Your task to perform on an android device: turn off improve location accuracy Image 0: 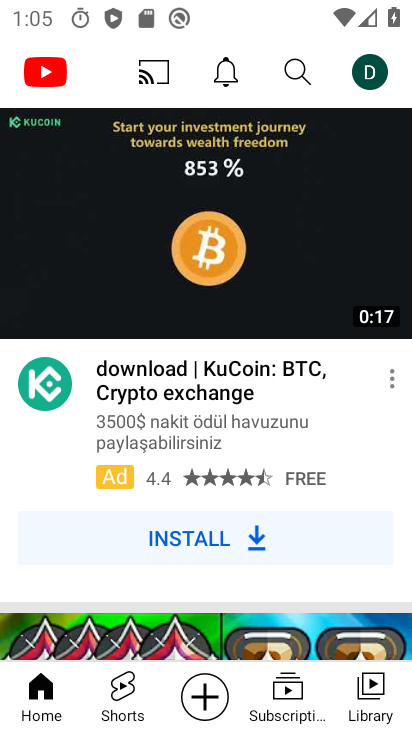
Step 0: press home button
Your task to perform on an android device: turn off improve location accuracy Image 1: 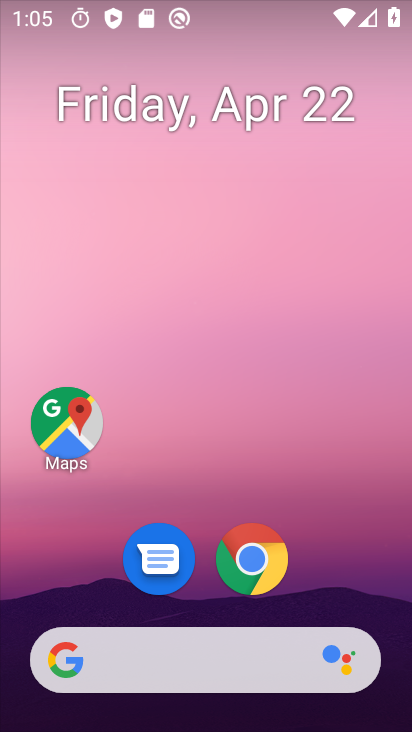
Step 1: drag from (339, 566) to (355, 153)
Your task to perform on an android device: turn off improve location accuracy Image 2: 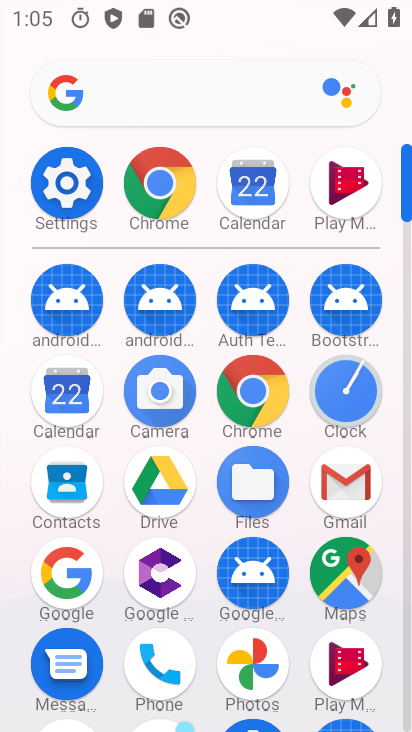
Step 2: click (77, 191)
Your task to perform on an android device: turn off improve location accuracy Image 3: 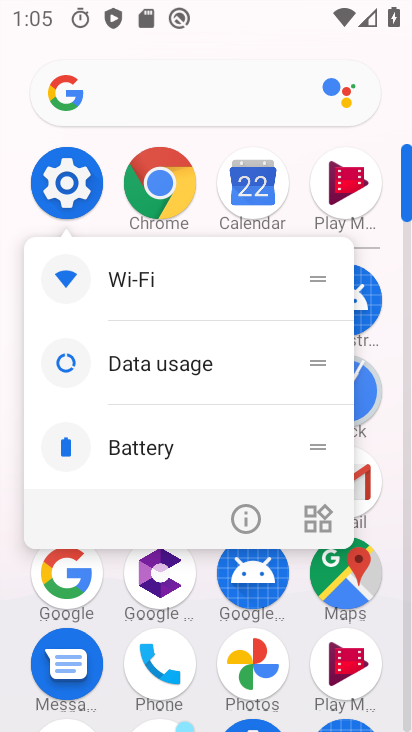
Step 3: click (77, 191)
Your task to perform on an android device: turn off improve location accuracy Image 4: 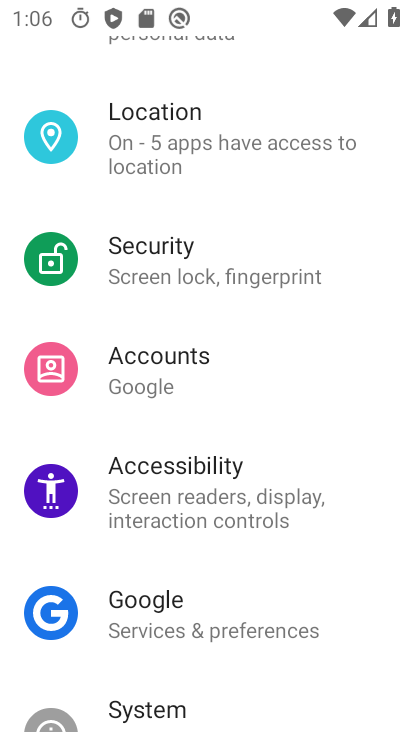
Step 4: drag from (378, 589) to (348, 430)
Your task to perform on an android device: turn off improve location accuracy Image 5: 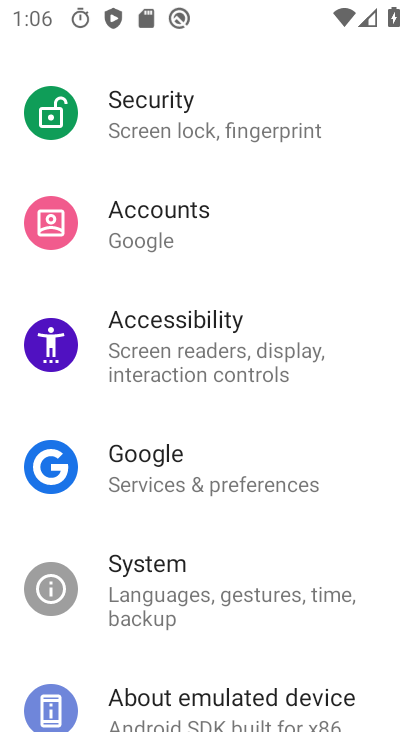
Step 5: drag from (362, 326) to (369, 411)
Your task to perform on an android device: turn off improve location accuracy Image 6: 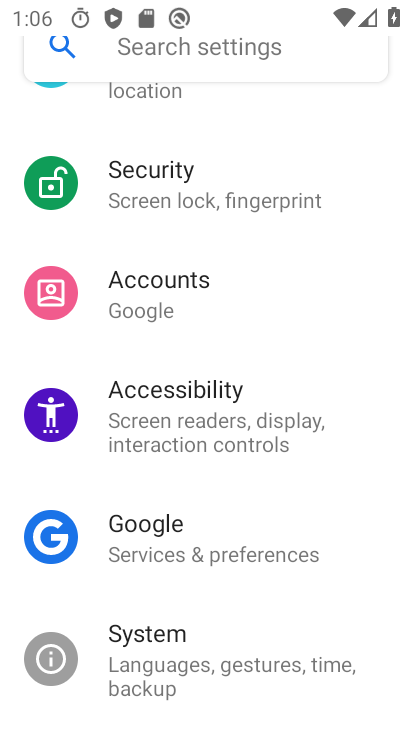
Step 6: drag from (363, 334) to (370, 408)
Your task to perform on an android device: turn off improve location accuracy Image 7: 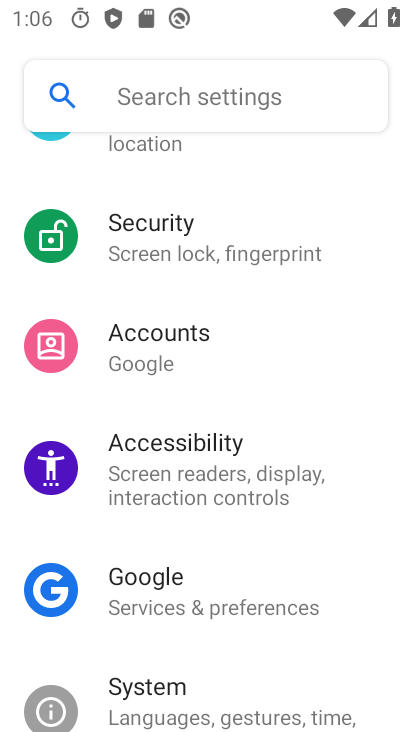
Step 7: drag from (366, 317) to (367, 413)
Your task to perform on an android device: turn off improve location accuracy Image 8: 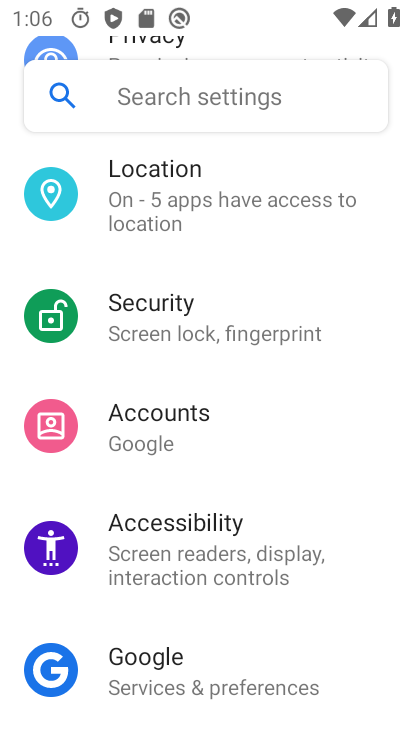
Step 8: drag from (360, 342) to (358, 413)
Your task to perform on an android device: turn off improve location accuracy Image 9: 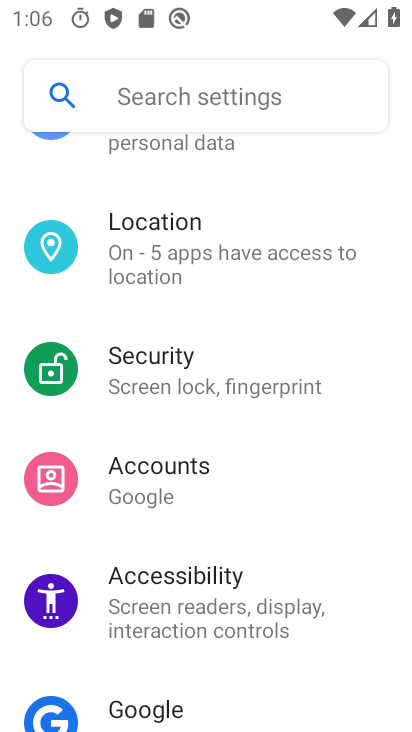
Step 9: drag from (360, 353) to (359, 453)
Your task to perform on an android device: turn off improve location accuracy Image 10: 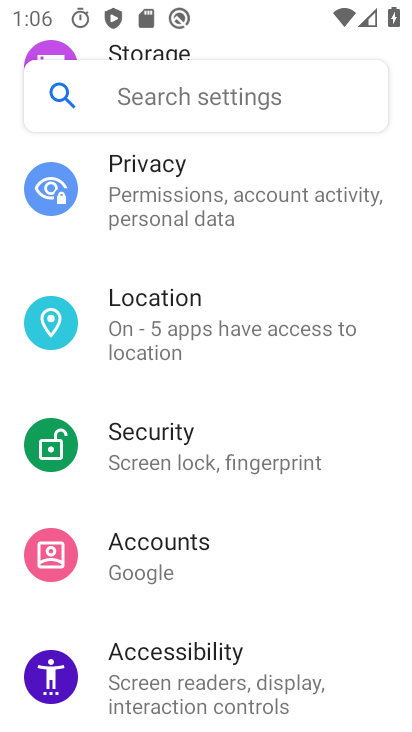
Step 10: drag from (357, 398) to (355, 468)
Your task to perform on an android device: turn off improve location accuracy Image 11: 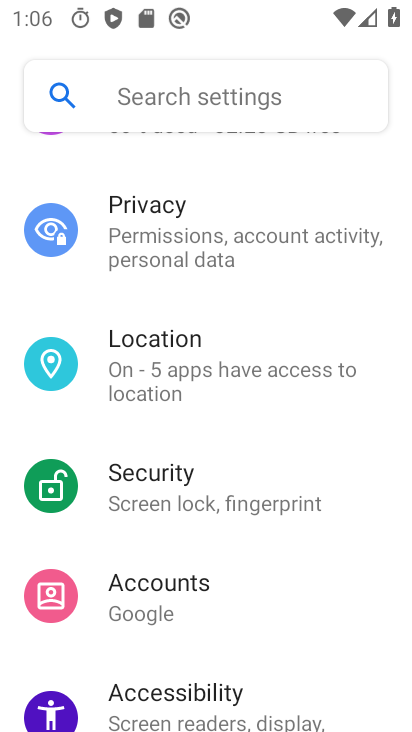
Step 11: drag from (374, 366) to (369, 492)
Your task to perform on an android device: turn off improve location accuracy Image 12: 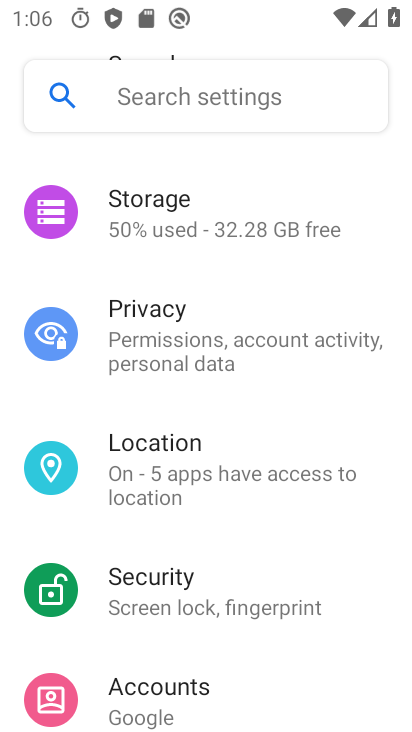
Step 12: click (307, 462)
Your task to perform on an android device: turn off improve location accuracy Image 13: 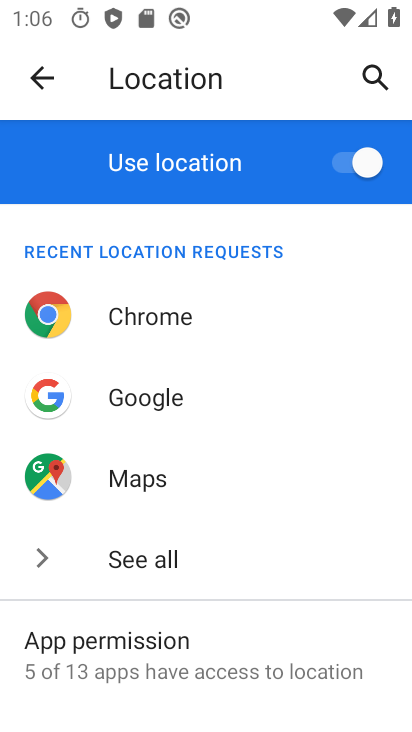
Step 13: drag from (290, 584) to (308, 411)
Your task to perform on an android device: turn off improve location accuracy Image 14: 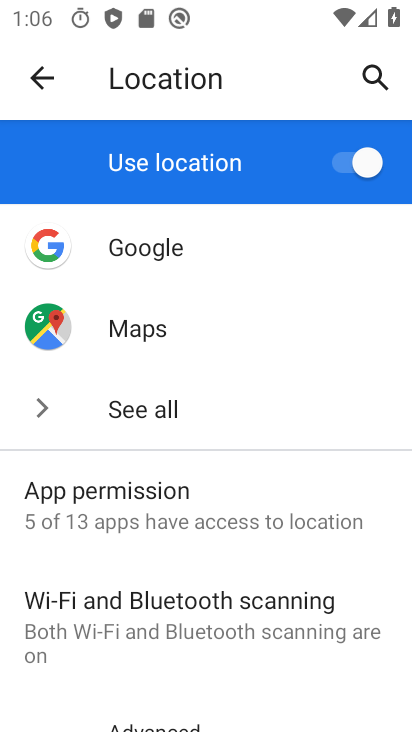
Step 14: drag from (287, 651) to (303, 430)
Your task to perform on an android device: turn off improve location accuracy Image 15: 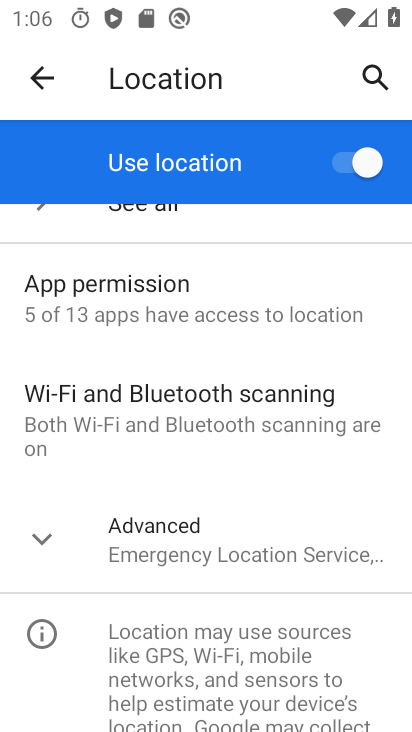
Step 15: click (297, 553)
Your task to perform on an android device: turn off improve location accuracy Image 16: 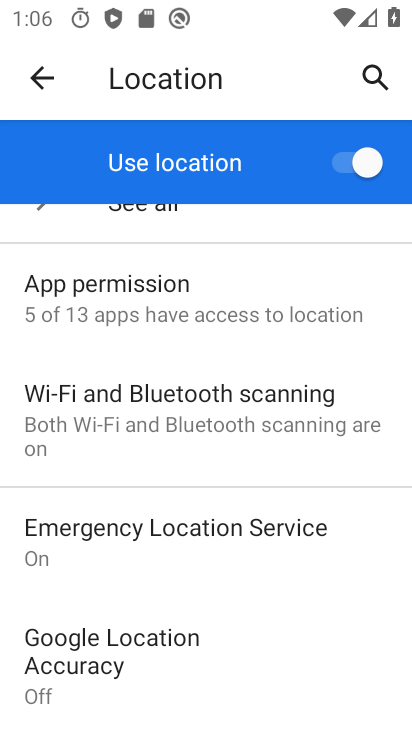
Step 16: drag from (378, 678) to (371, 548)
Your task to perform on an android device: turn off improve location accuracy Image 17: 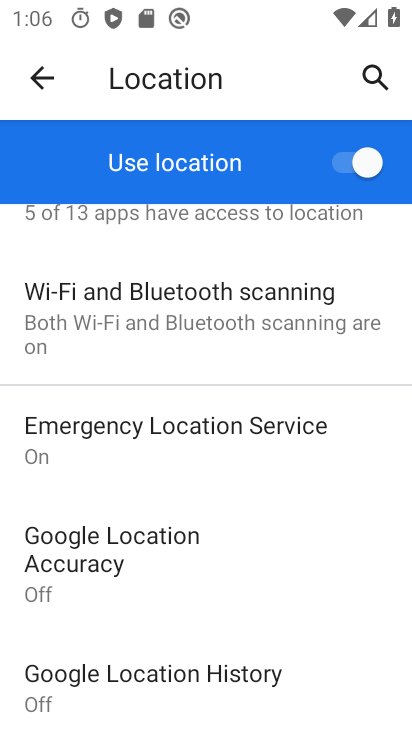
Step 17: drag from (325, 663) to (322, 541)
Your task to perform on an android device: turn off improve location accuracy Image 18: 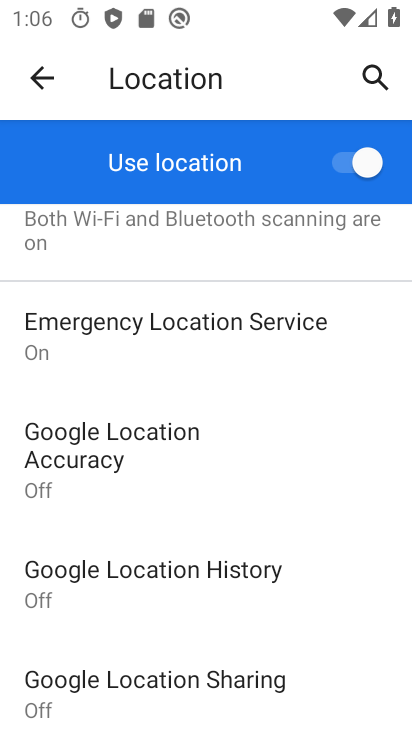
Step 18: drag from (320, 622) to (299, 501)
Your task to perform on an android device: turn off improve location accuracy Image 19: 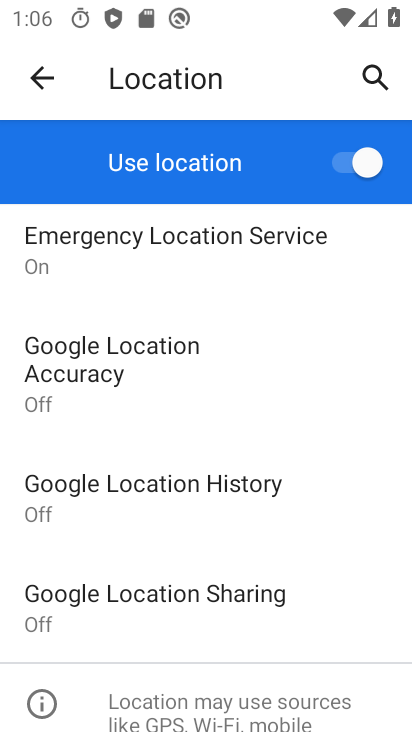
Step 19: click (78, 355)
Your task to perform on an android device: turn off improve location accuracy Image 20: 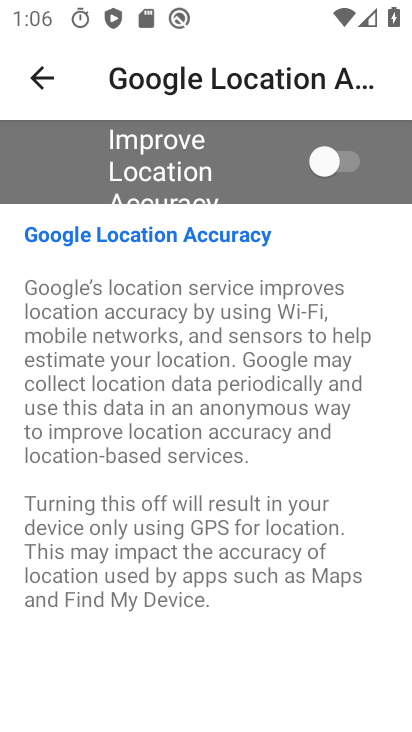
Step 20: task complete